Your task to perform on an android device: Open the calendar and show me this week's events? Image 0: 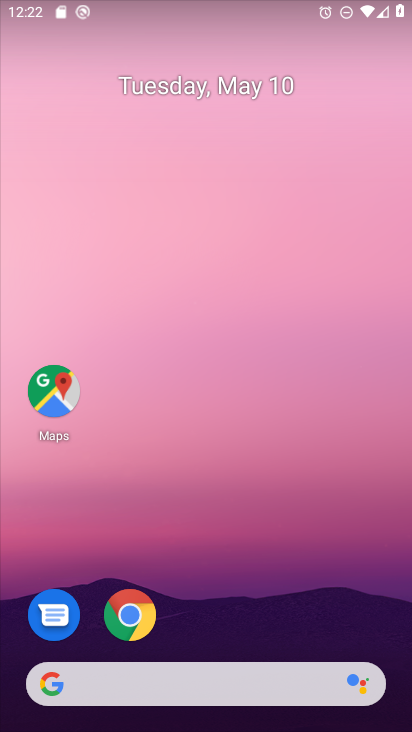
Step 0: drag from (136, 709) to (327, 66)
Your task to perform on an android device: Open the calendar and show me this week's events? Image 1: 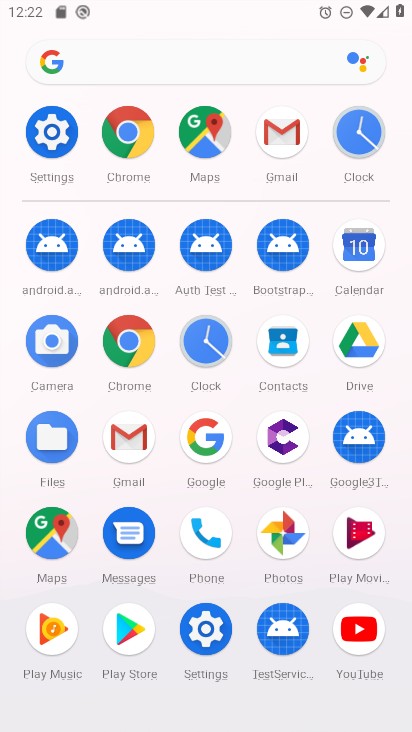
Step 1: click (383, 235)
Your task to perform on an android device: Open the calendar and show me this week's events? Image 2: 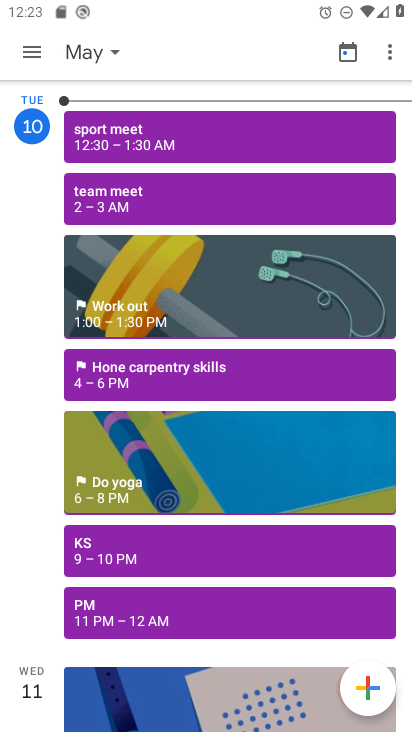
Step 2: click (38, 51)
Your task to perform on an android device: Open the calendar and show me this week's events? Image 3: 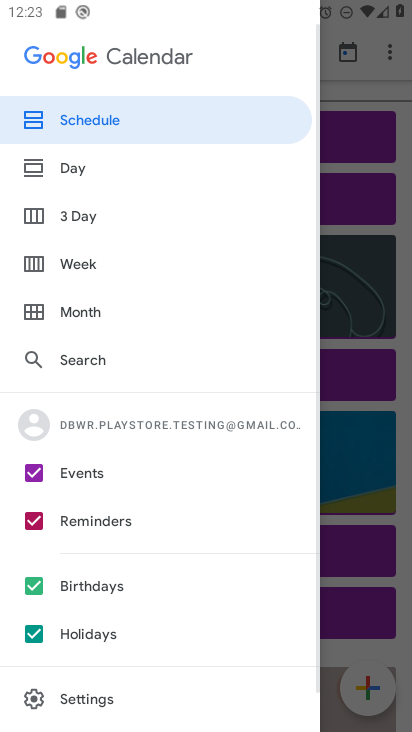
Step 3: click (106, 125)
Your task to perform on an android device: Open the calendar and show me this week's events? Image 4: 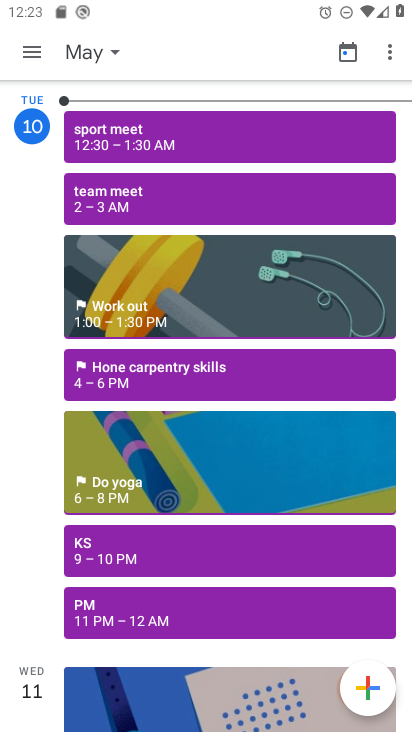
Step 4: task complete